Your task to perform on an android device: Open settings Image 0: 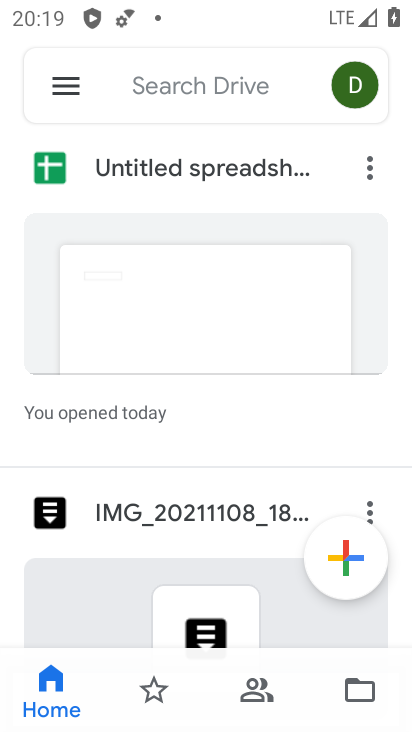
Step 0: press home button
Your task to perform on an android device: Open settings Image 1: 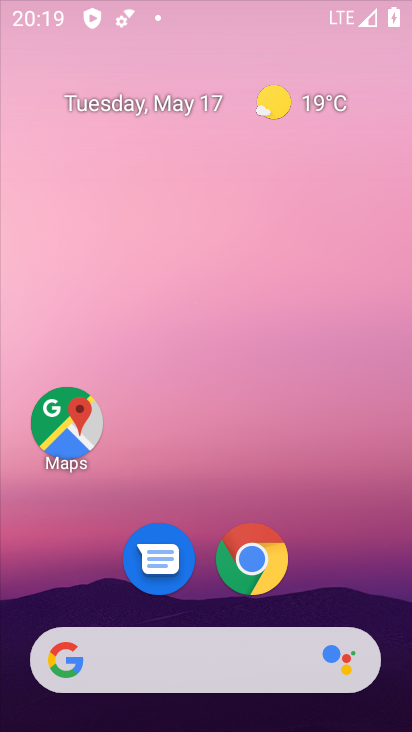
Step 1: drag from (163, 619) to (223, 121)
Your task to perform on an android device: Open settings Image 2: 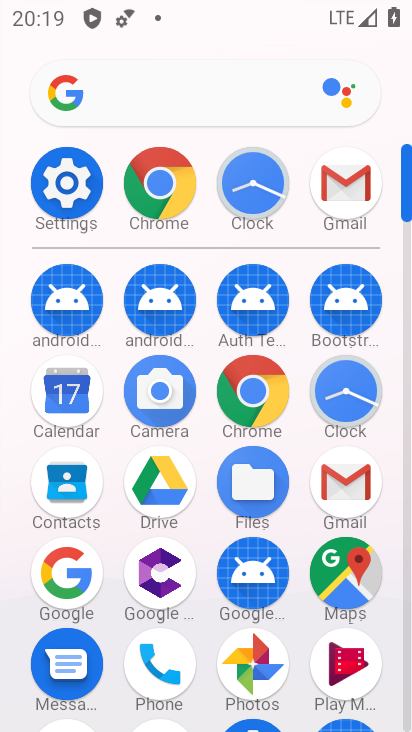
Step 2: click (79, 169)
Your task to perform on an android device: Open settings Image 3: 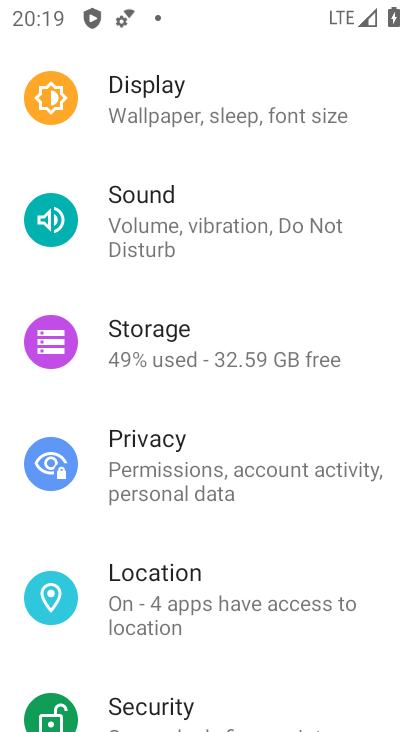
Step 3: task complete